Your task to perform on an android device: Go to Android settings Image 0: 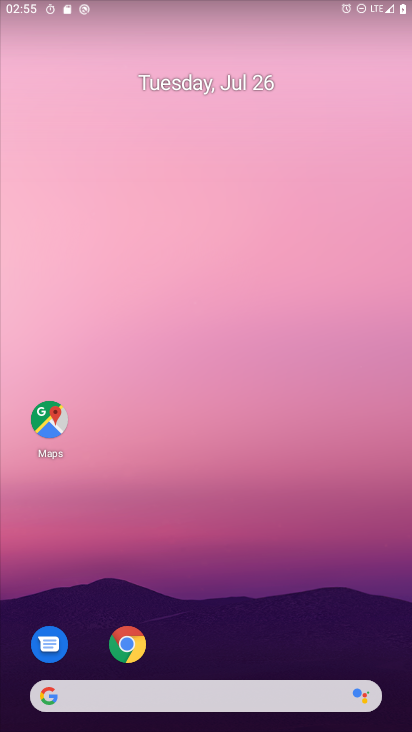
Step 0: drag from (336, 659) to (265, 4)
Your task to perform on an android device: Go to Android settings Image 1: 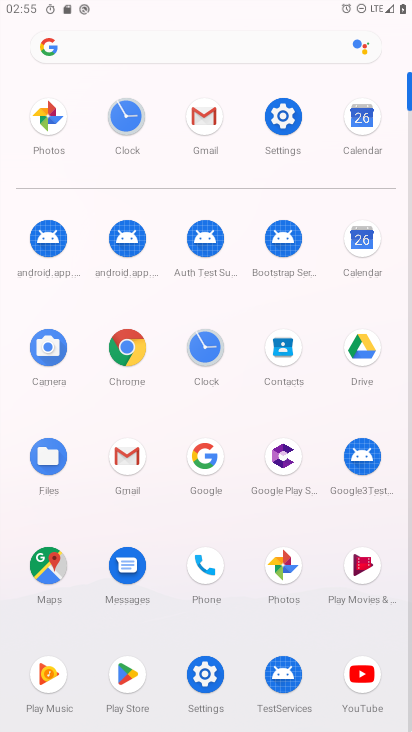
Step 1: click (283, 122)
Your task to perform on an android device: Go to Android settings Image 2: 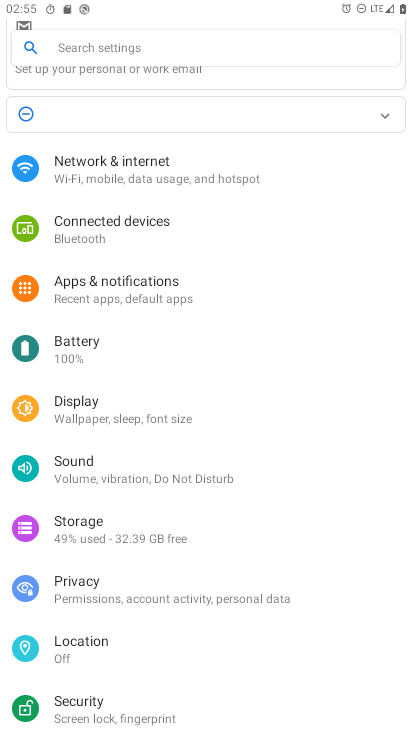
Step 2: task complete